Your task to perform on an android device: toggle pop-ups in chrome Image 0: 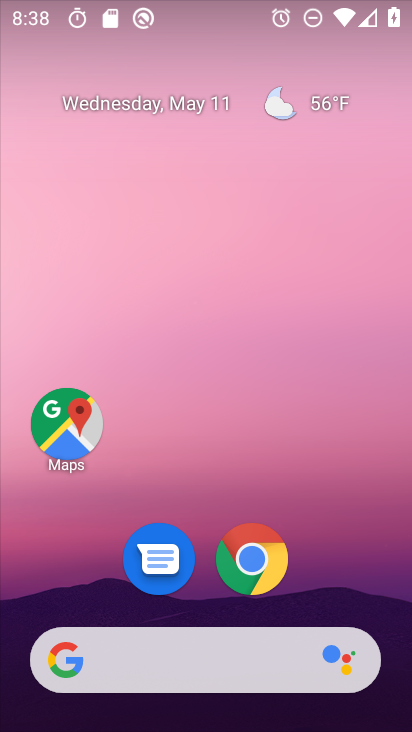
Step 0: click (258, 558)
Your task to perform on an android device: toggle pop-ups in chrome Image 1: 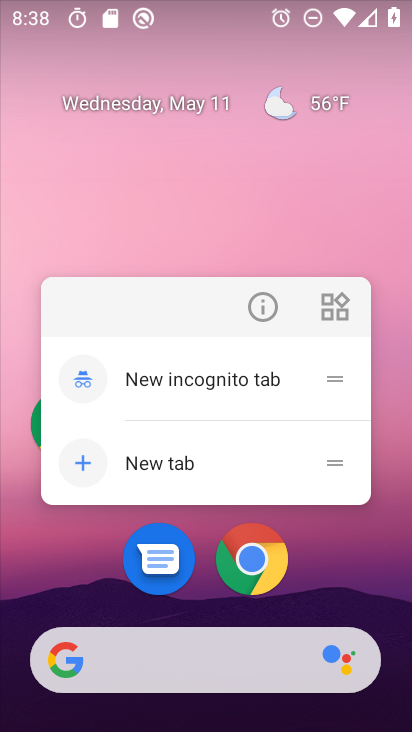
Step 1: click (253, 557)
Your task to perform on an android device: toggle pop-ups in chrome Image 2: 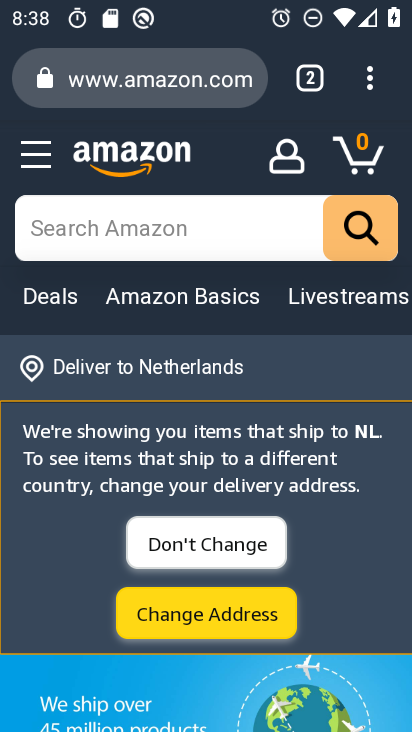
Step 2: click (371, 80)
Your task to perform on an android device: toggle pop-ups in chrome Image 3: 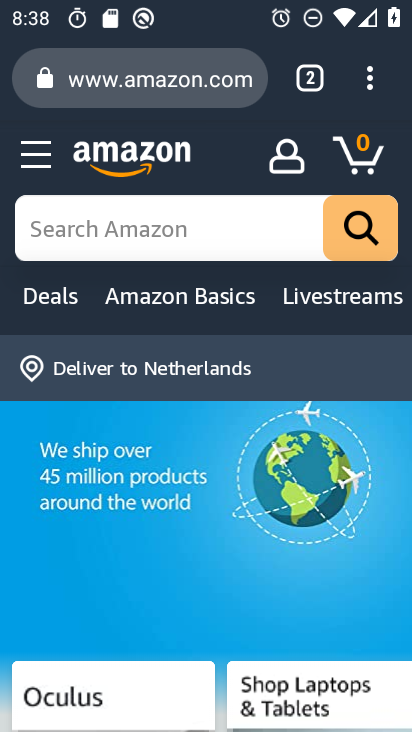
Step 3: click (376, 62)
Your task to perform on an android device: toggle pop-ups in chrome Image 4: 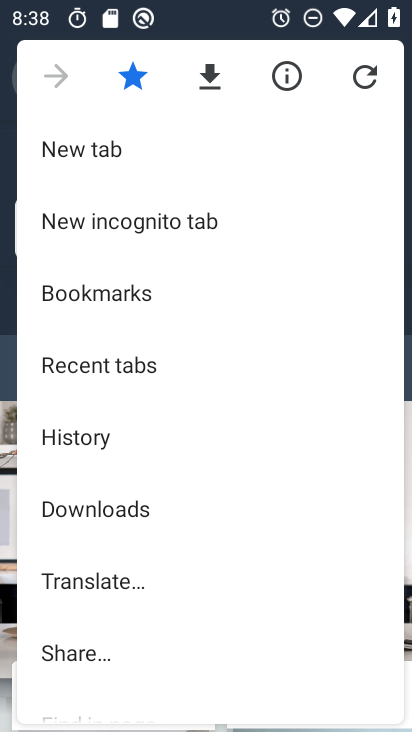
Step 4: drag from (136, 590) to (215, 79)
Your task to perform on an android device: toggle pop-ups in chrome Image 5: 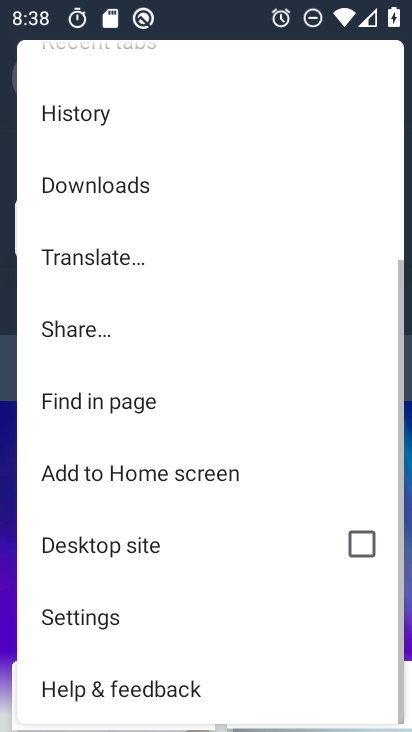
Step 5: click (73, 613)
Your task to perform on an android device: toggle pop-ups in chrome Image 6: 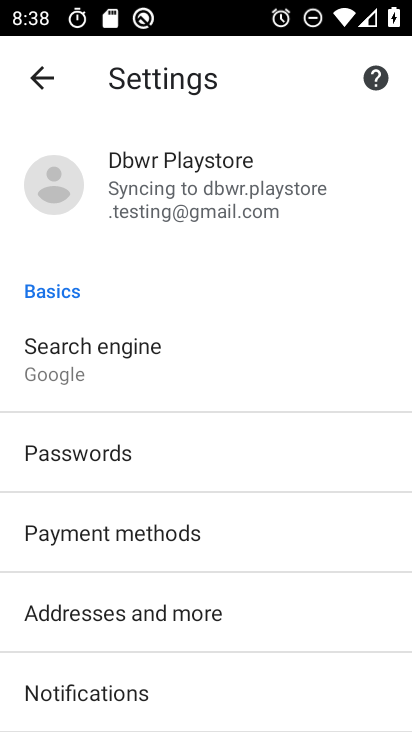
Step 6: drag from (174, 549) to (211, 154)
Your task to perform on an android device: toggle pop-ups in chrome Image 7: 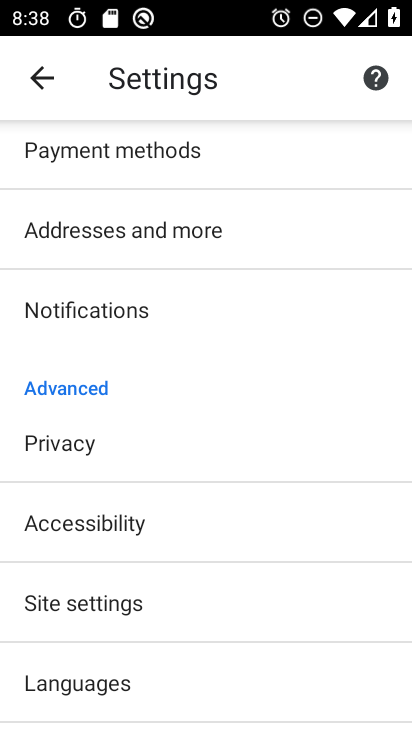
Step 7: click (112, 609)
Your task to perform on an android device: toggle pop-ups in chrome Image 8: 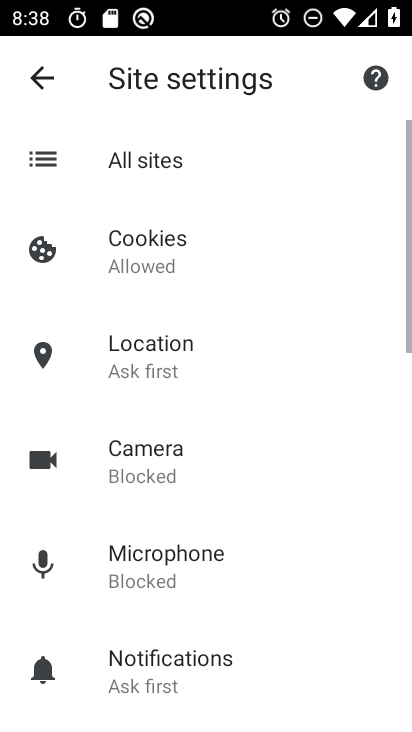
Step 8: drag from (113, 607) to (165, 191)
Your task to perform on an android device: toggle pop-ups in chrome Image 9: 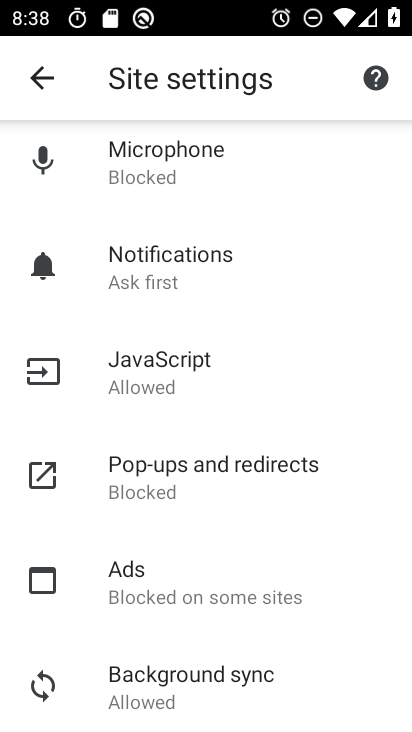
Step 9: click (167, 477)
Your task to perform on an android device: toggle pop-ups in chrome Image 10: 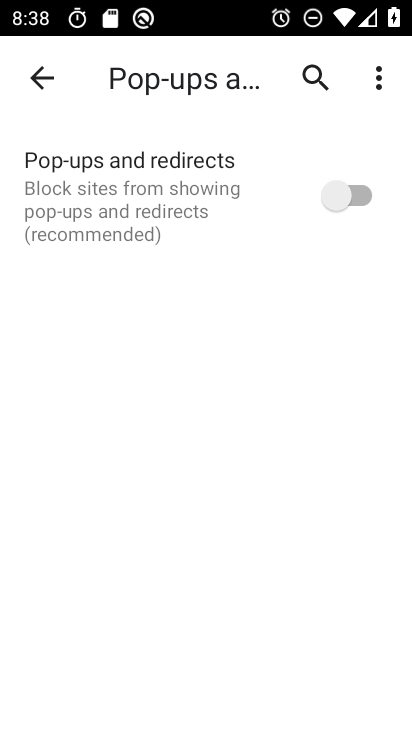
Step 10: click (358, 166)
Your task to perform on an android device: toggle pop-ups in chrome Image 11: 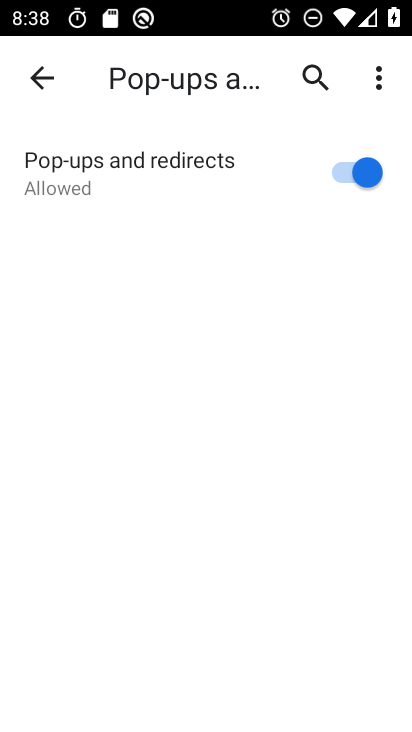
Step 11: task complete